Your task to perform on an android device: Open Chrome and go to settings Image 0: 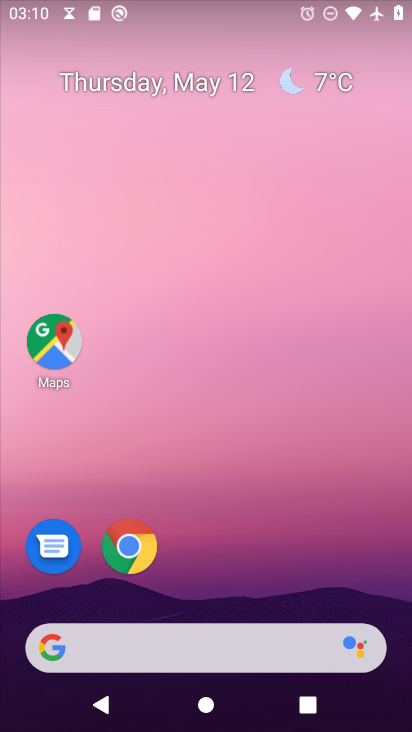
Step 0: click (137, 552)
Your task to perform on an android device: Open Chrome and go to settings Image 1: 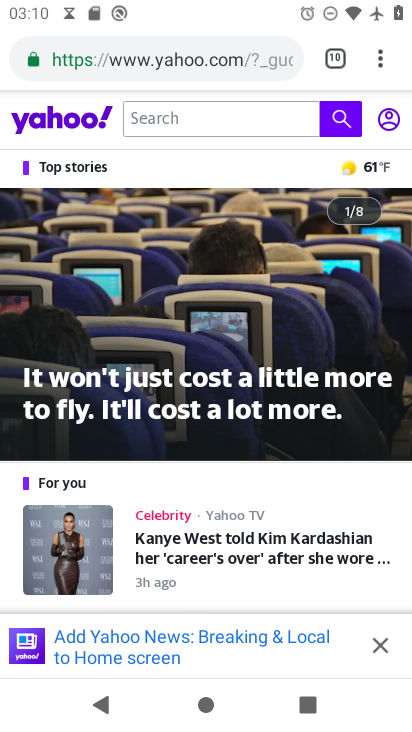
Step 1: task complete